Your task to perform on an android device: set the timer Image 0: 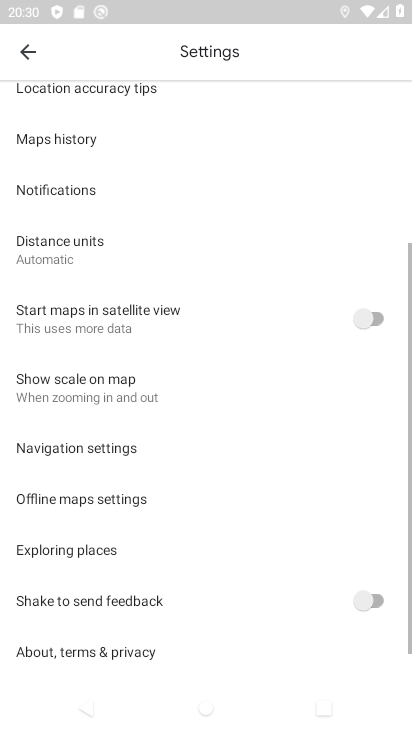
Step 0: press home button
Your task to perform on an android device: set the timer Image 1: 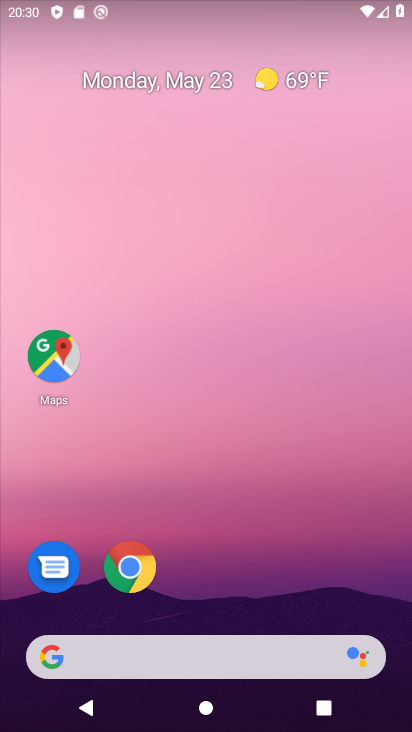
Step 1: drag from (228, 572) to (291, 4)
Your task to perform on an android device: set the timer Image 2: 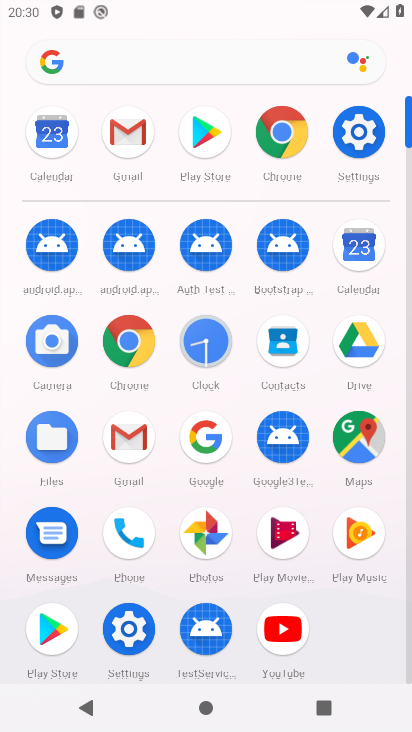
Step 2: click (211, 347)
Your task to perform on an android device: set the timer Image 3: 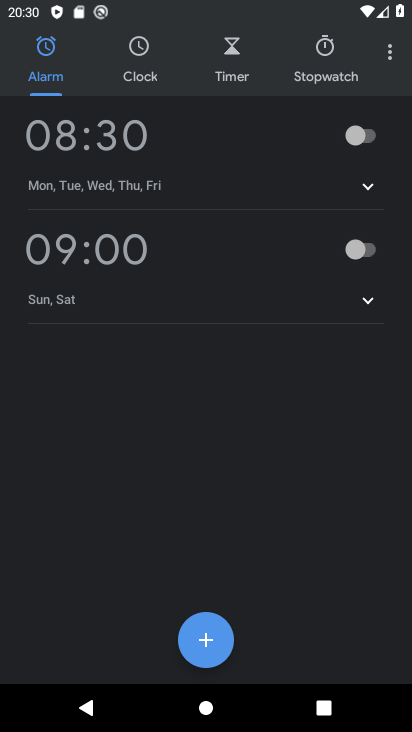
Step 3: click (234, 71)
Your task to perform on an android device: set the timer Image 4: 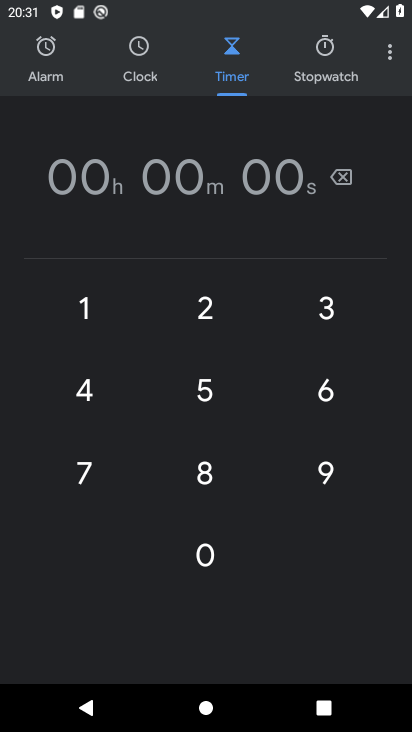
Step 4: click (317, 395)
Your task to perform on an android device: set the timer Image 5: 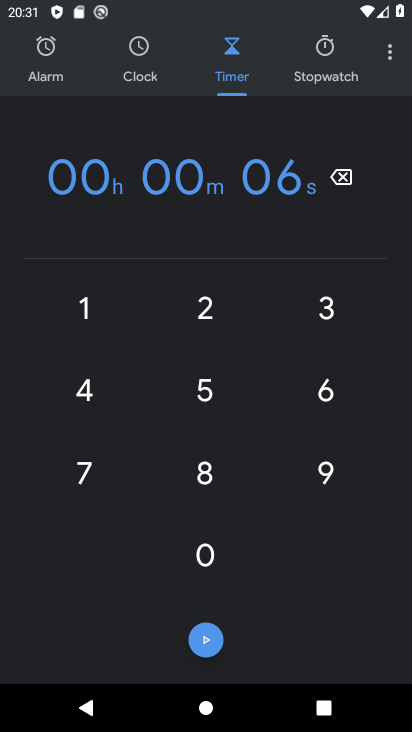
Step 5: click (334, 298)
Your task to perform on an android device: set the timer Image 6: 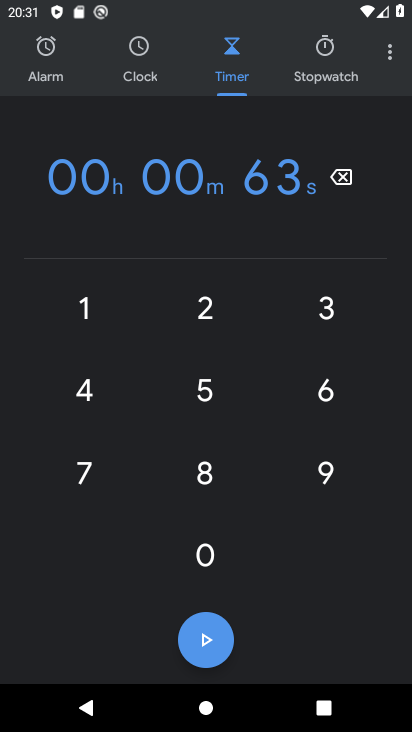
Step 6: click (206, 468)
Your task to perform on an android device: set the timer Image 7: 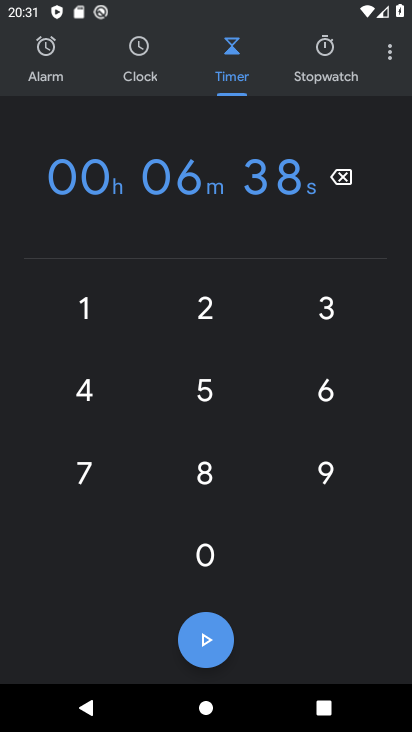
Step 7: click (222, 644)
Your task to perform on an android device: set the timer Image 8: 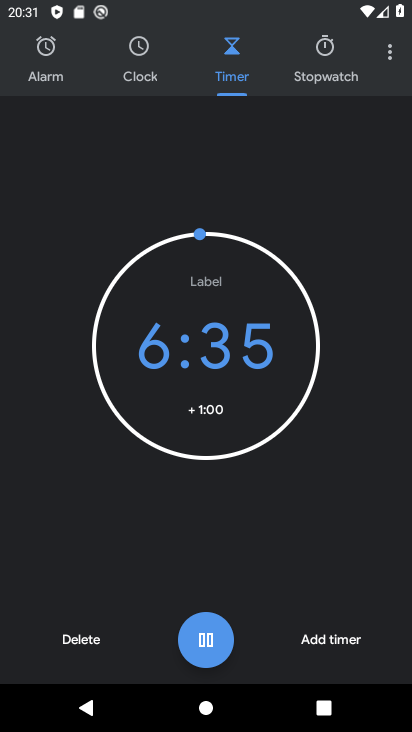
Step 8: task complete